Your task to perform on an android device: Do I have any events tomorrow? Image 0: 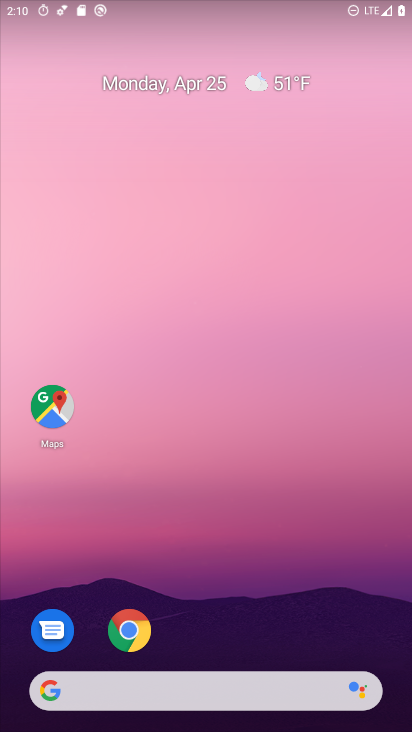
Step 0: drag from (209, 620) to (257, 154)
Your task to perform on an android device: Do I have any events tomorrow? Image 1: 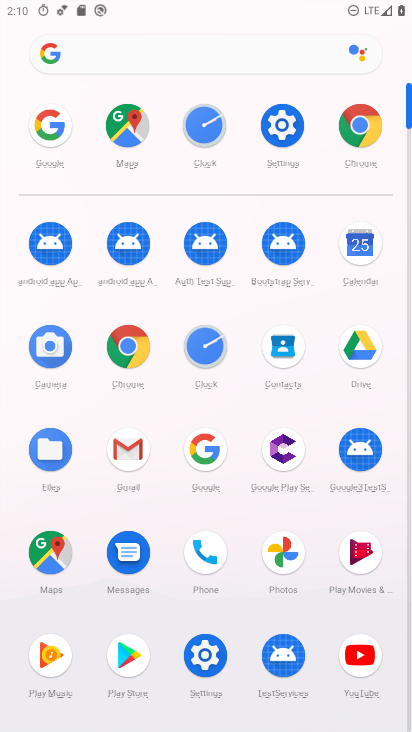
Step 1: click (359, 246)
Your task to perform on an android device: Do I have any events tomorrow? Image 2: 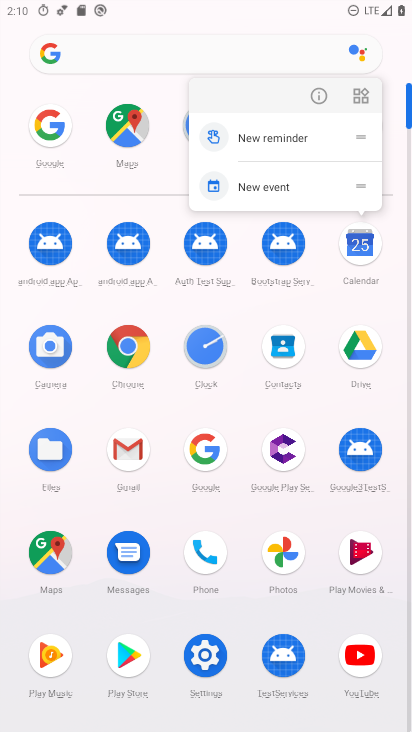
Step 2: click (321, 98)
Your task to perform on an android device: Do I have any events tomorrow? Image 3: 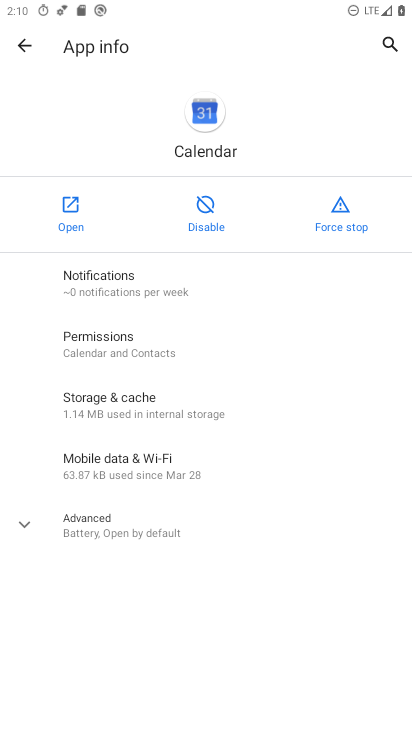
Step 3: click (76, 222)
Your task to perform on an android device: Do I have any events tomorrow? Image 4: 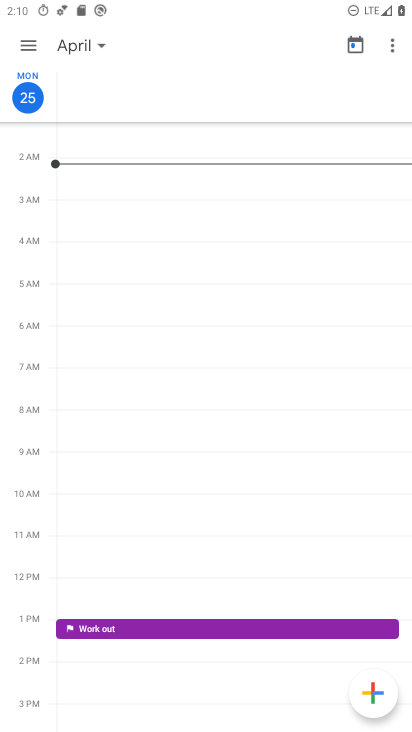
Step 4: drag from (172, 558) to (295, 95)
Your task to perform on an android device: Do I have any events tomorrow? Image 5: 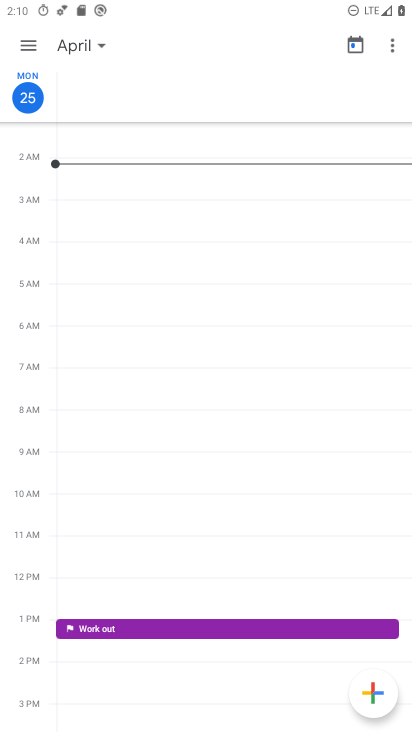
Step 5: drag from (198, 597) to (306, 159)
Your task to perform on an android device: Do I have any events tomorrow? Image 6: 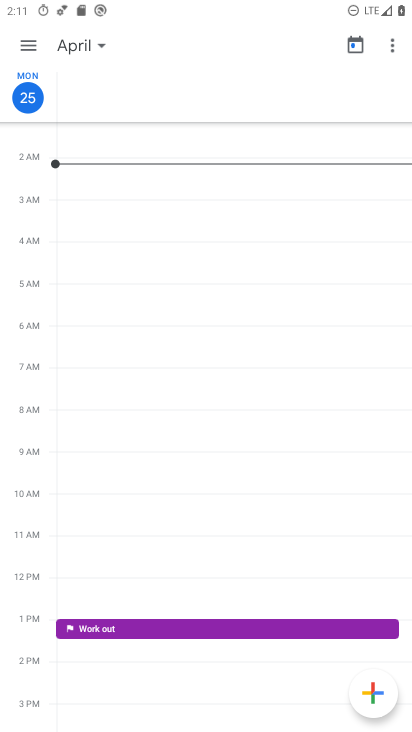
Step 6: click (53, 45)
Your task to perform on an android device: Do I have any events tomorrow? Image 7: 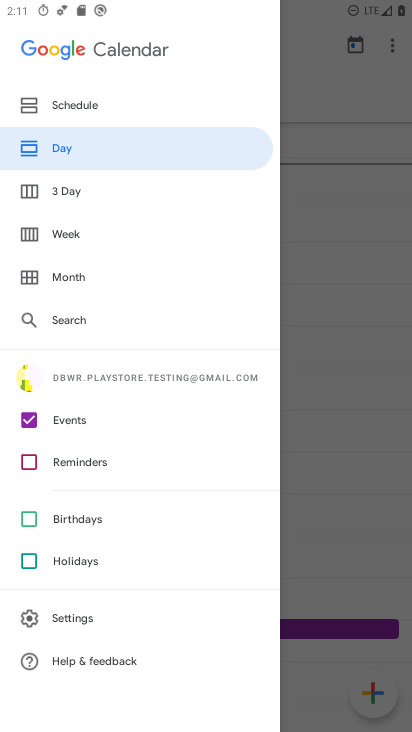
Step 7: click (405, 138)
Your task to perform on an android device: Do I have any events tomorrow? Image 8: 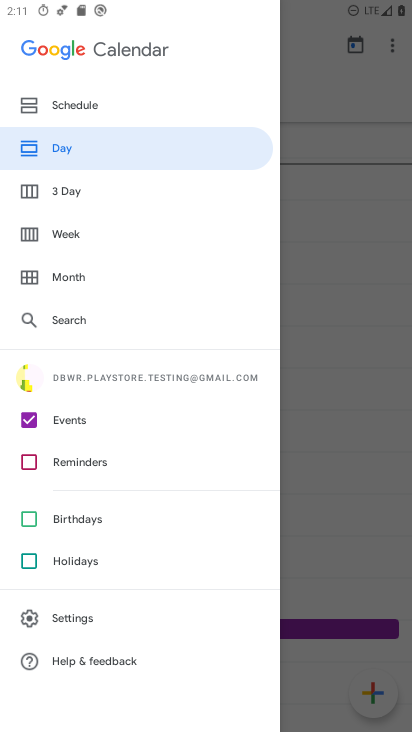
Step 8: click (387, 81)
Your task to perform on an android device: Do I have any events tomorrow? Image 9: 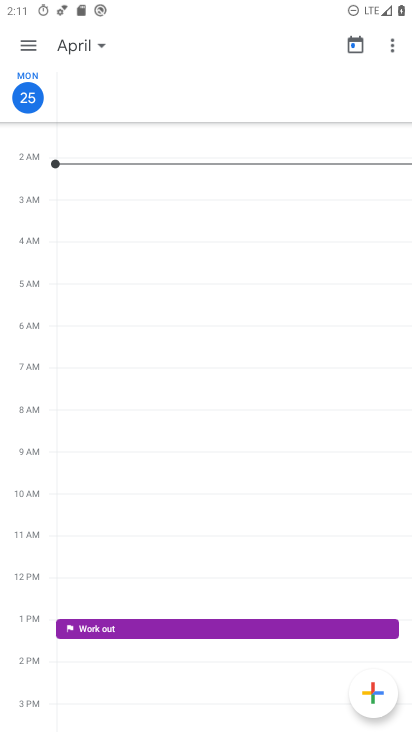
Step 9: click (326, 87)
Your task to perform on an android device: Do I have any events tomorrow? Image 10: 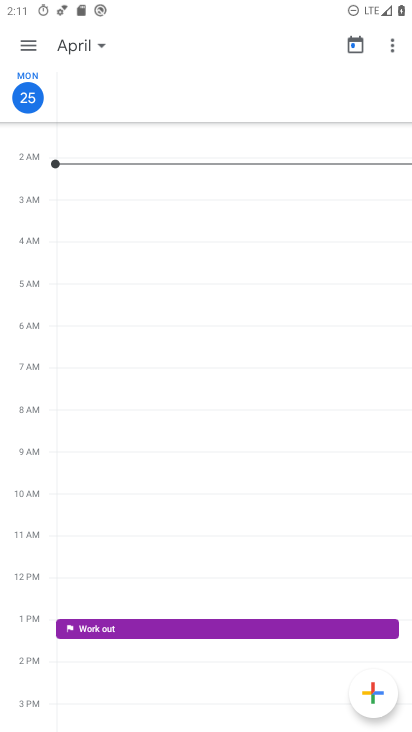
Step 10: click (103, 44)
Your task to perform on an android device: Do I have any events tomorrow? Image 11: 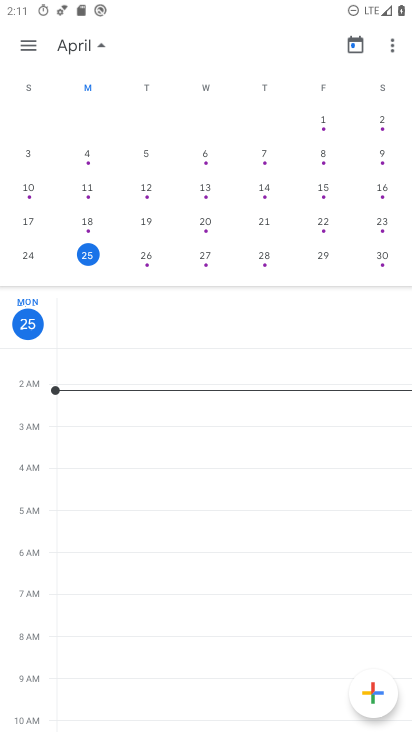
Step 11: click (149, 256)
Your task to perform on an android device: Do I have any events tomorrow? Image 12: 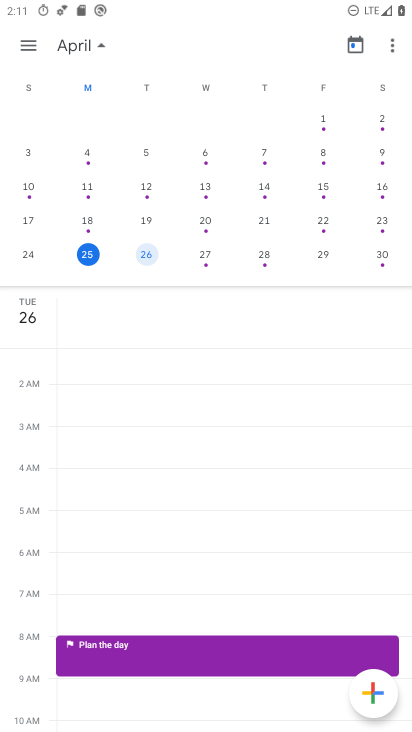
Step 12: task complete